Your task to perform on an android device: turn on data saver in the chrome app Image 0: 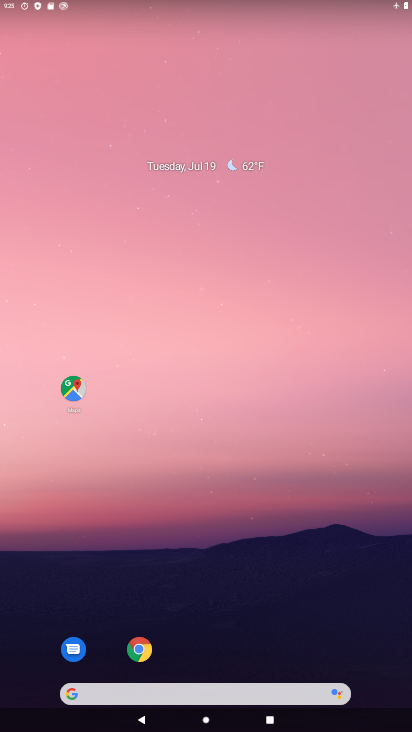
Step 0: click (140, 645)
Your task to perform on an android device: turn on data saver in the chrome app Image 1: 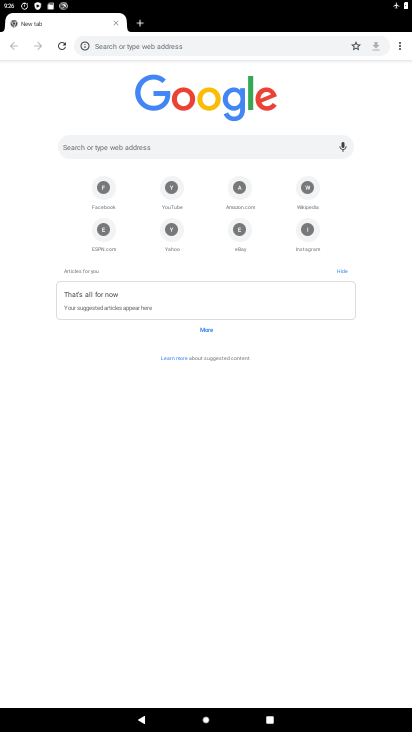
Step 1: click (404, 39)
Your task to perform on an android device: turn on data saver in the chrome app Image 2: 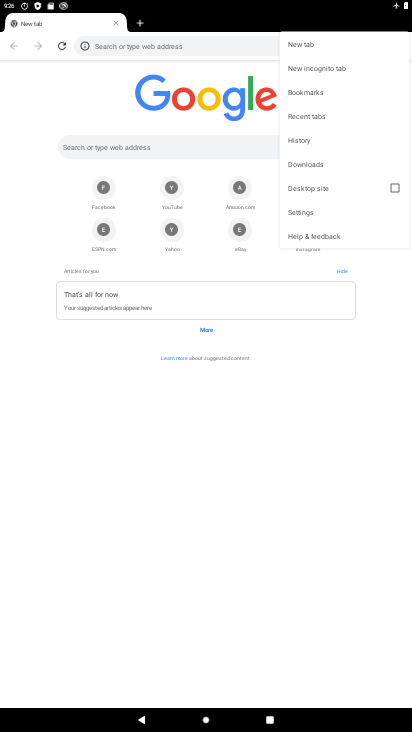
Step 2: click (311, 212)
Your task to perform on an android device: turn on data saver in the chrome app Image 3: 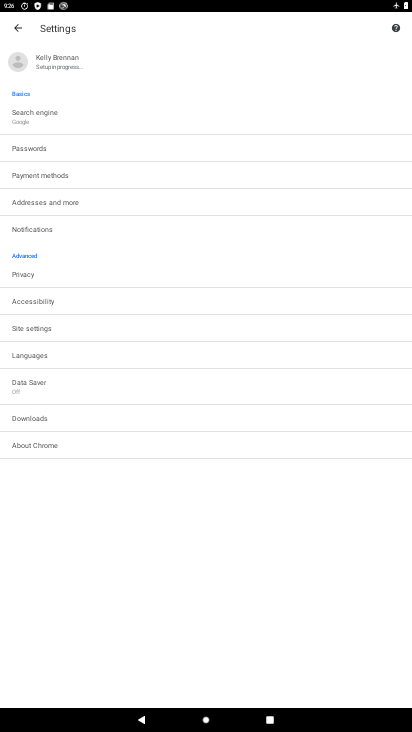
Step 3: click (68, 375)
Your task to perform on an android device: turn on data saver in the chrome app Image 4: 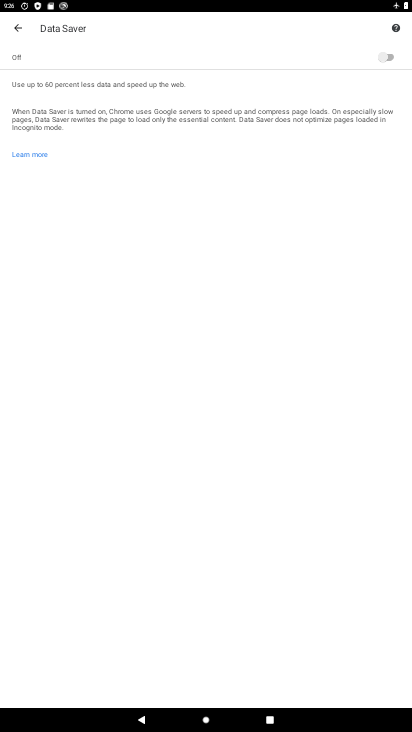
Step 4: click (381, 61)
Your task to perform on an android device: turn on data saver in the chrome app Image 5: 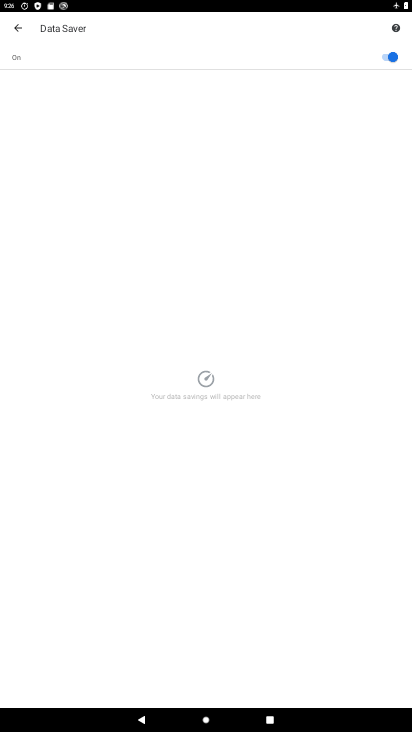
Step 5: task complete